Your task to perform on an android device: Go to Amazon Image 0: 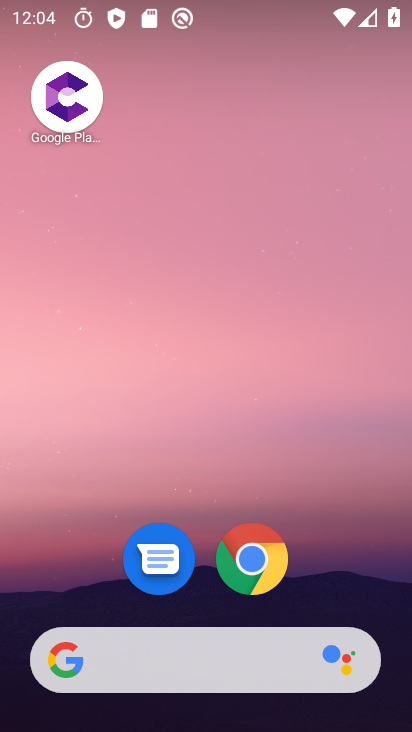
Step 0: click (247, 568)
Your task to perform on an android device: Go to Amazon Image 1: 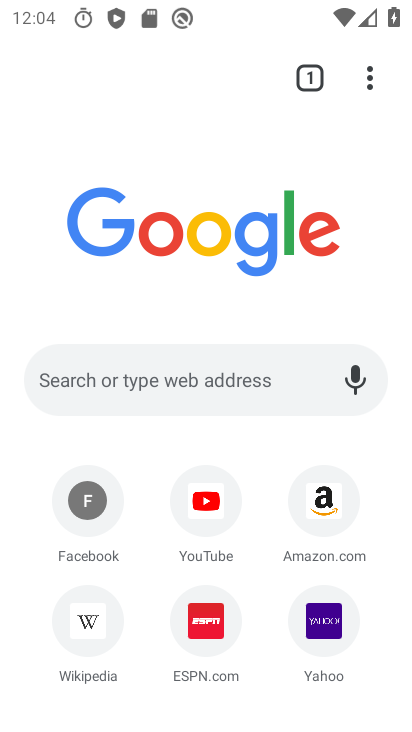
Step 1: click (326, 500)
Your task to perform on an android device: Go to Amazon Image 2: 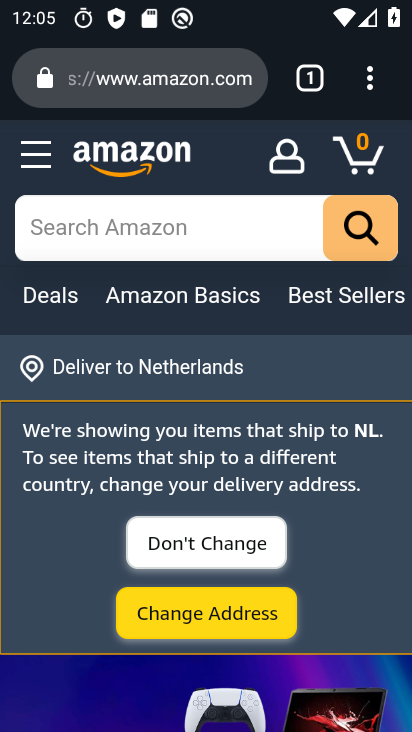
Step 2: task complete